Your task to perform on an android device: What's the weather going to be tomorrow? Image 0: 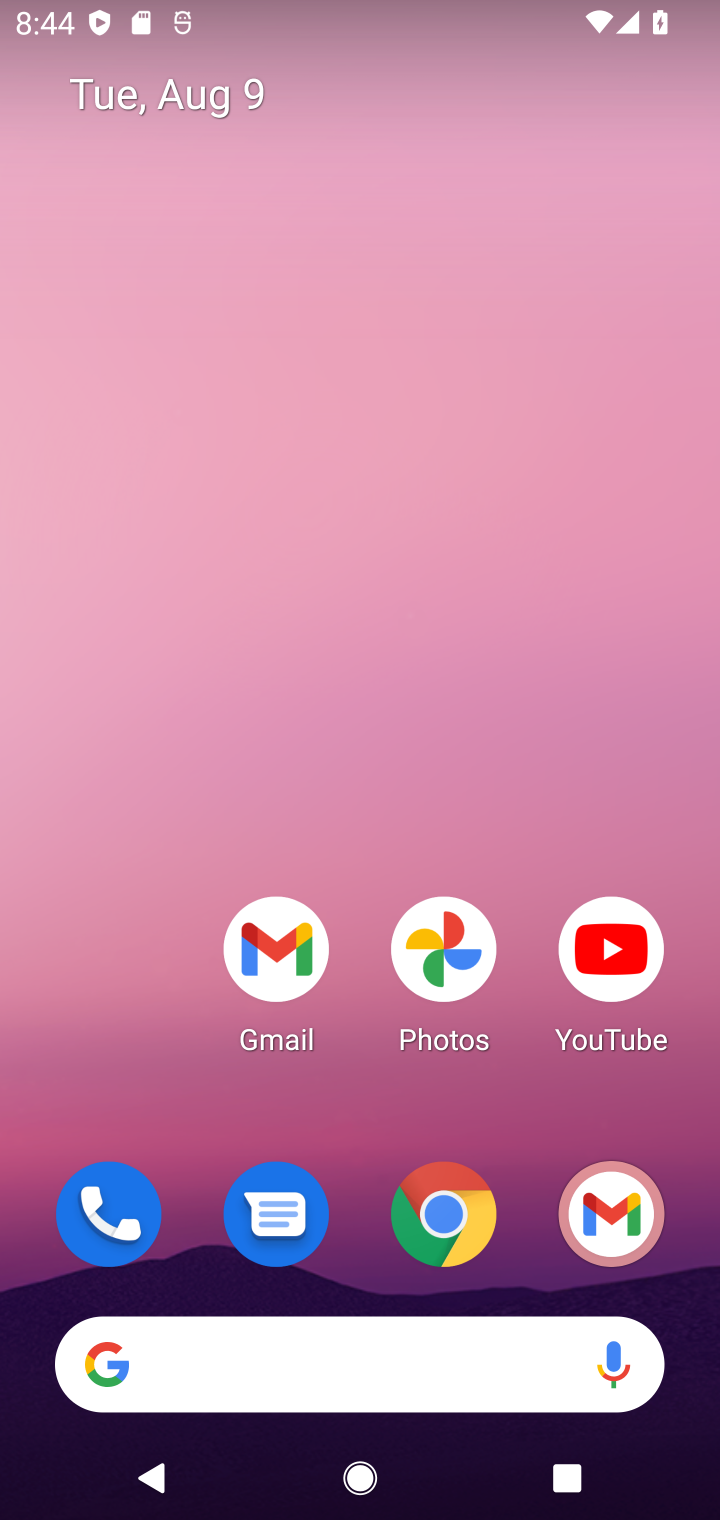
Step 0: click (194, 1374)
Your task to perform on an android device: What's the weather going to be tomorrow? Image 1: 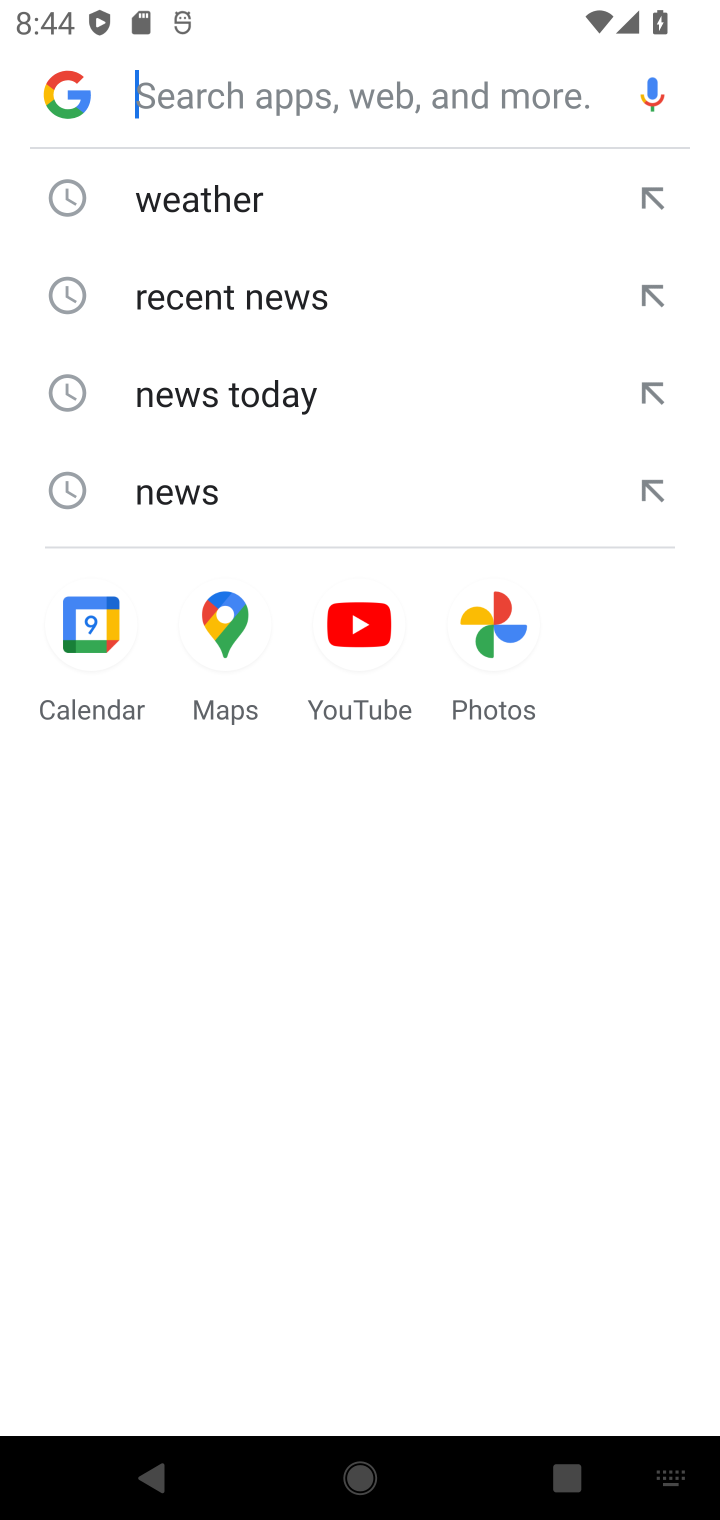
Step 1: click (194, 1374)
Your task to perform on an android device: What's the weather going to be tomorrow? Image 2: 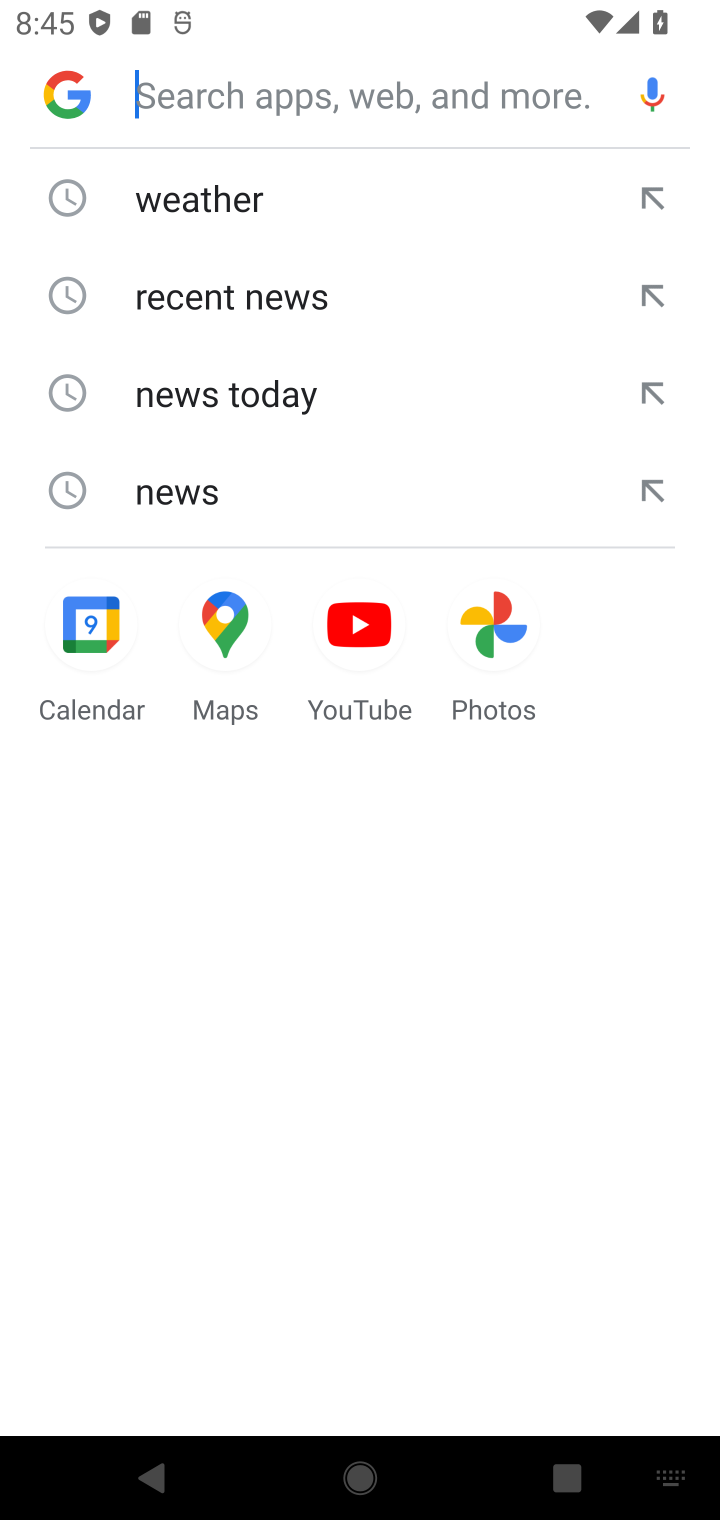
Step 2: type "What's the weather going to be tomorrow?"
Your task to perform on an android device: What's the weather going to be tomorrow? Image 3: 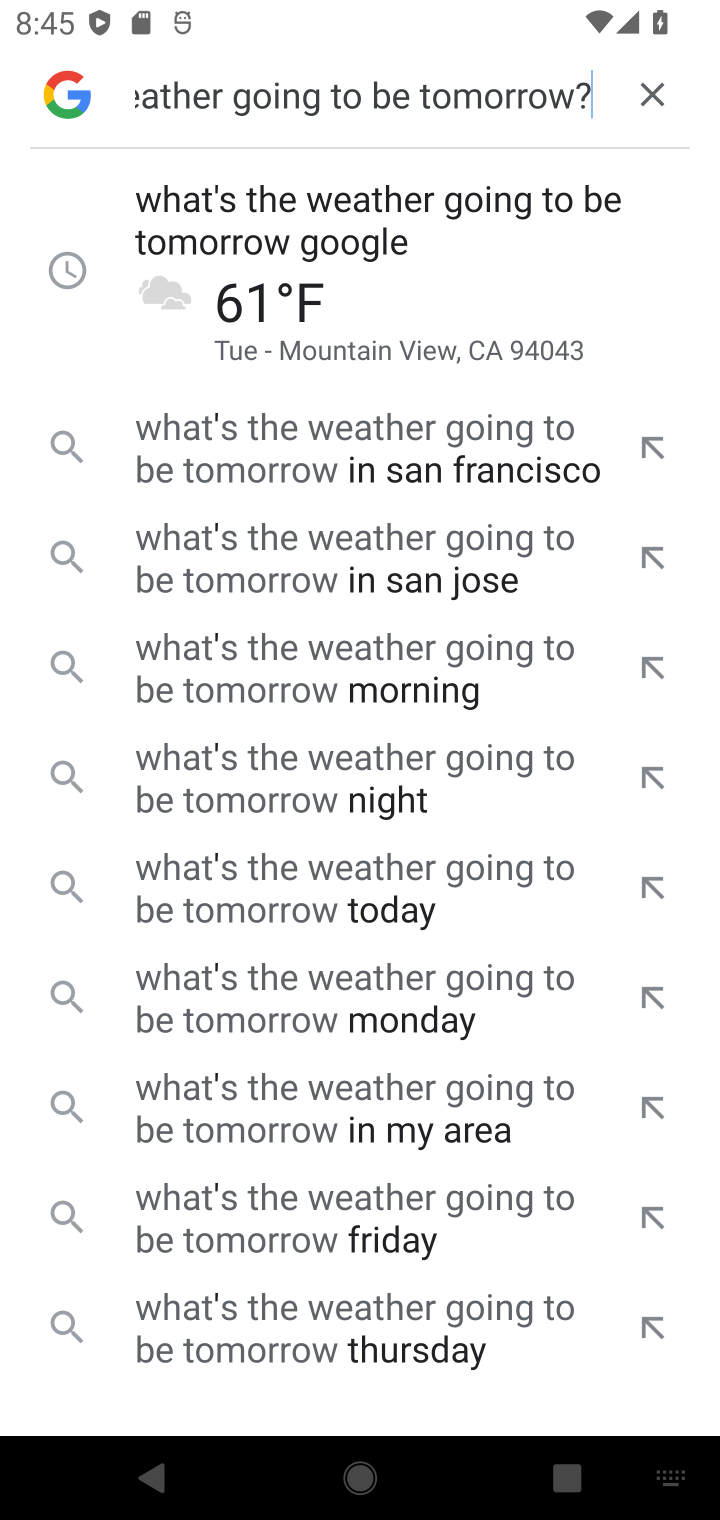
Step 3: task complete